Your task to perform on an android device: Open Yahoo.com Image 0: 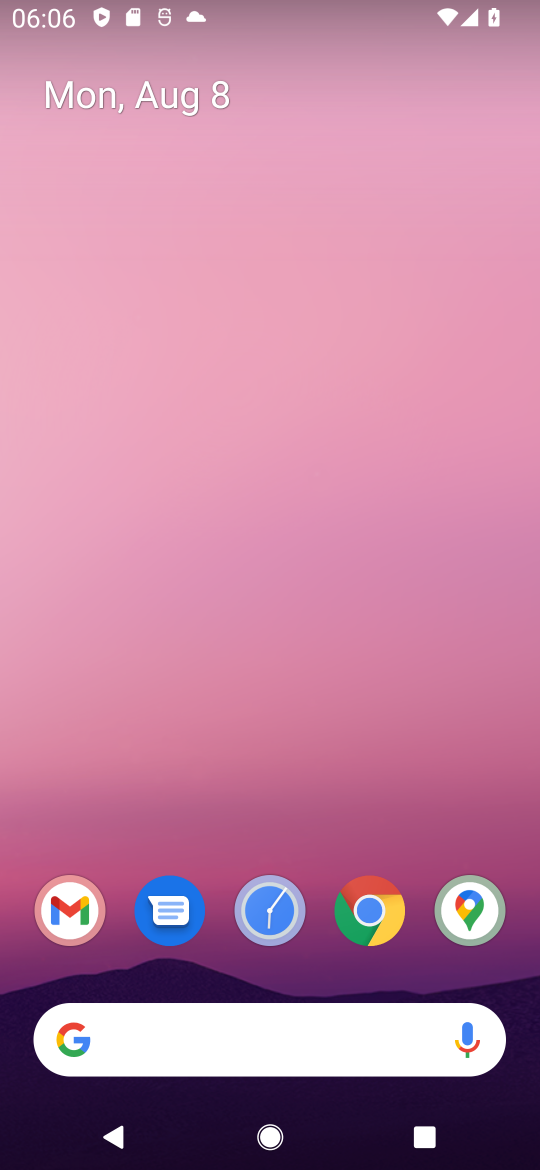
Step 0: click (372, 915)
Your task to perform on an android device: Open Yahoo.com Image 1: 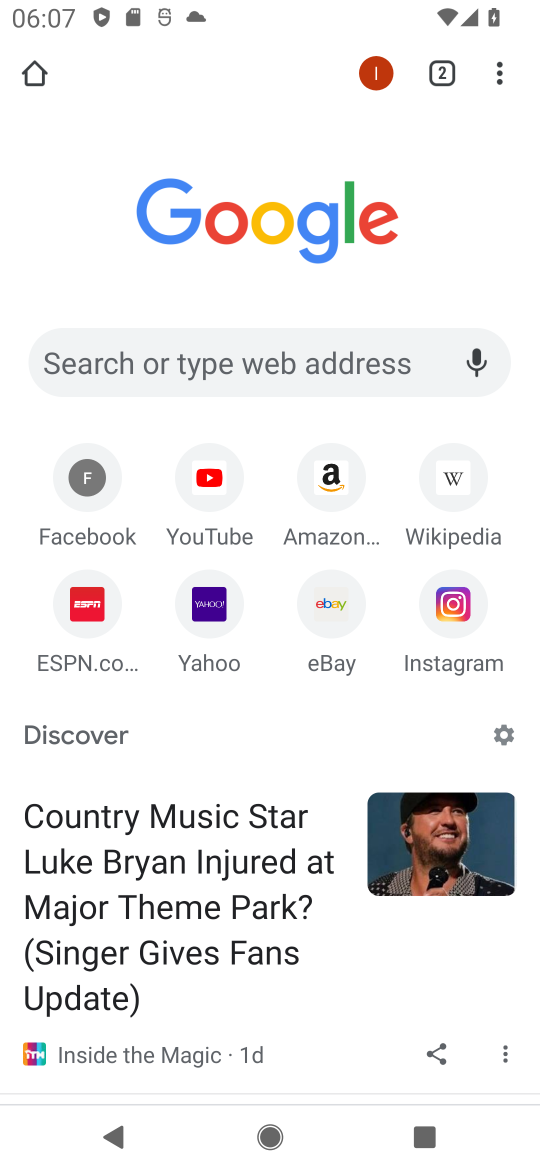
Step 1: click (213, 608)
Your task to perform on an android device: Open Yahoo.com Image 2: 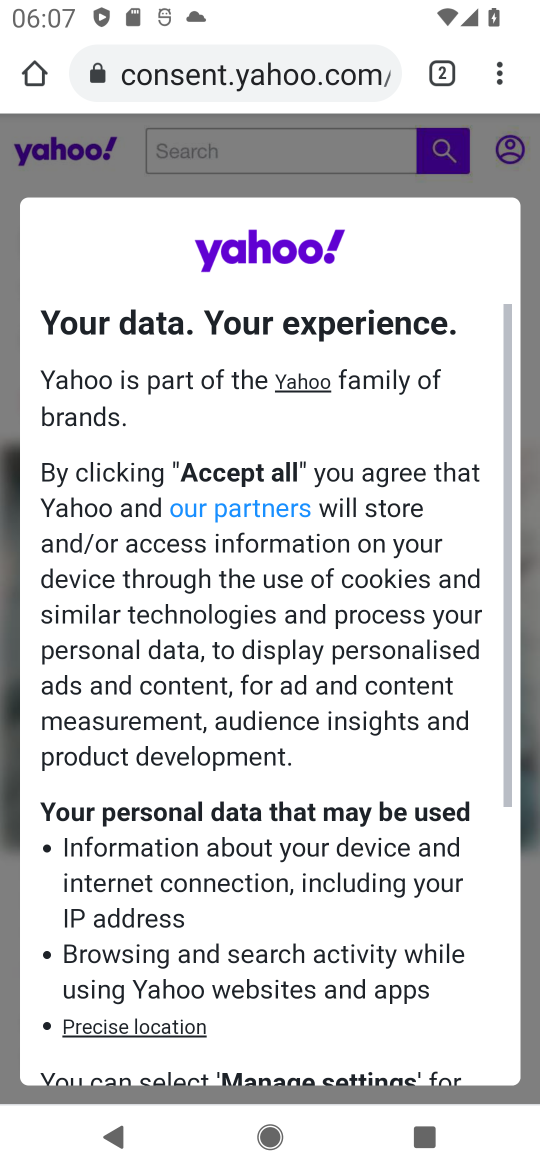
Step 2: drag from (314, 1007) to (352, 706)
Your task to perform on an android device: Open Yahoo.com Image 3: 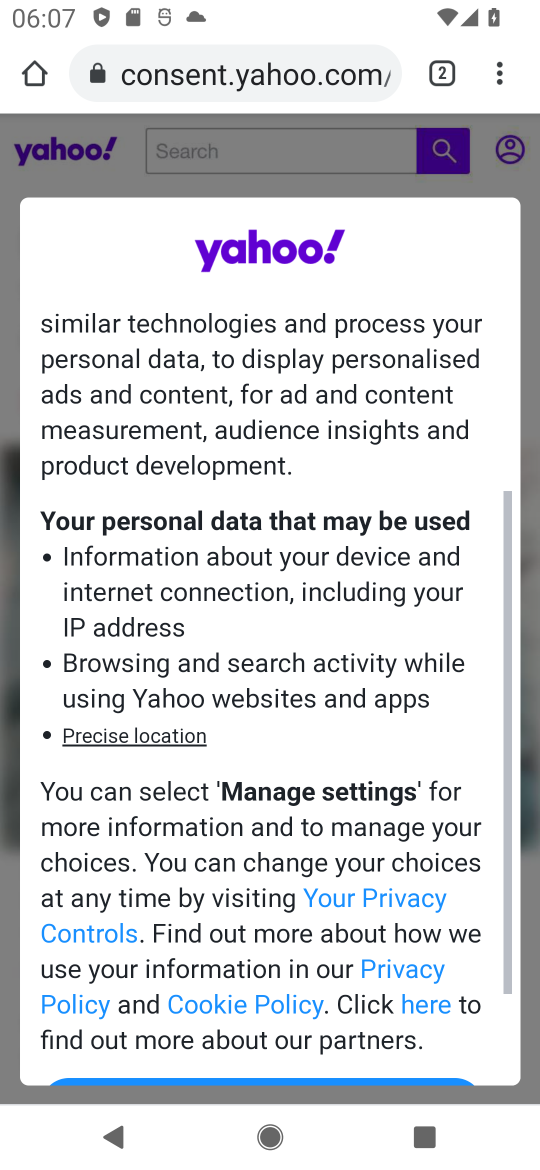
Step 3: drag from (253, 754) to (380, 539)
Your task to perform on an android device: Open Yahoo.com Image 4: 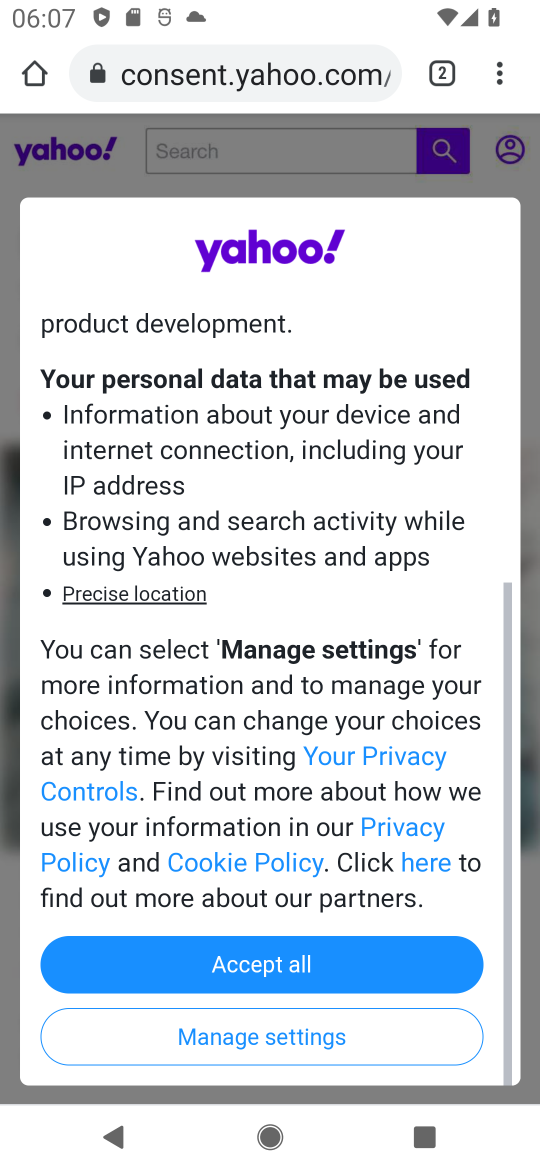
Step 4: click (234, 961)
Your task to perform on an android device: Open Yahoo.com Image 5: 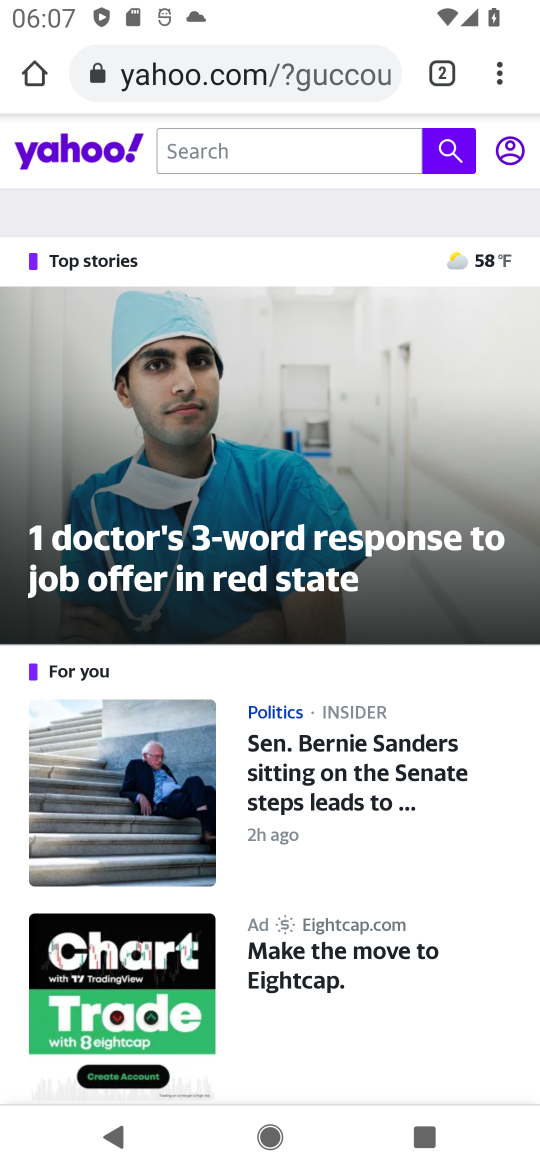
Step 5: task complete